Your task to perform on an android device: Do I have any events today? Image 0: 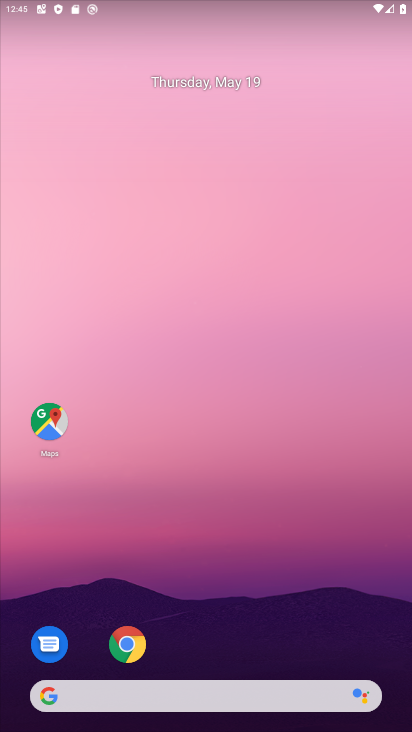
Step 0: drag from (271, 617) to (277, 285)
Your task to perform on an android device: Do I have any events today? Image 1: 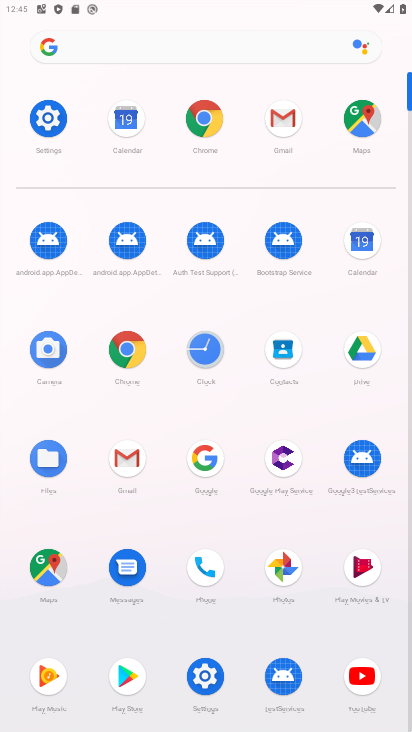
Step 1: click (130, 114)
Your task to perform on an android device: Do I have any events today? Image 2: 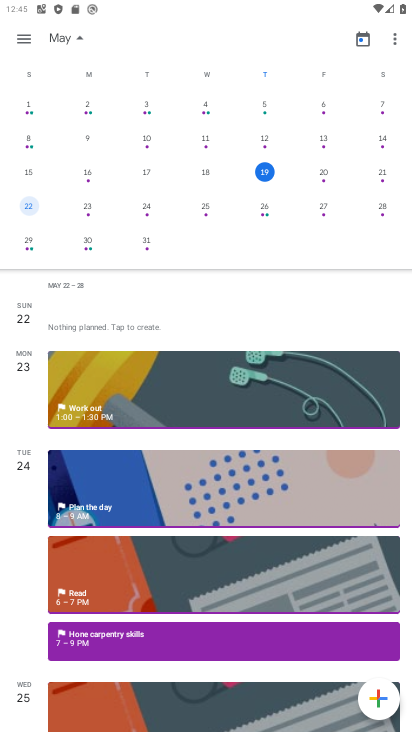
Step 2: click (255, 179)
Your task to perform on an android device: Do I have any events today? Image 3: 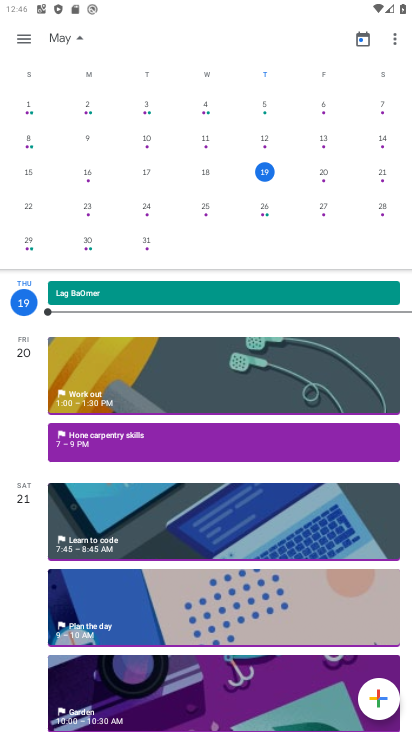
Step 3: task complete